Your task to perform on an android device: Open calendar and show me the third week of next month Image 0: 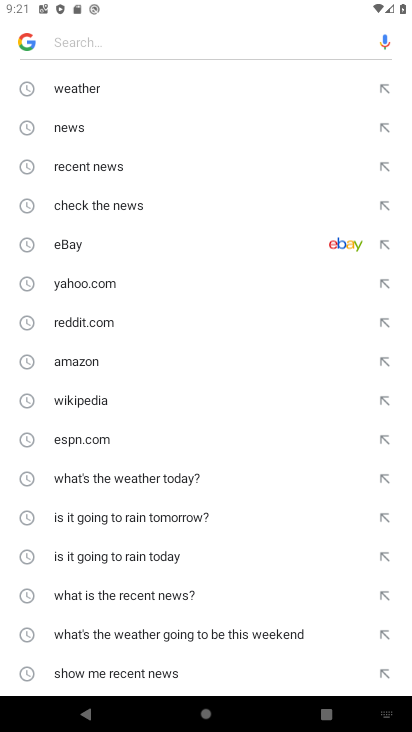
Step 0: press home button
Your task to perform on an android device: Open calendar and show me the third week of next month Image 1: 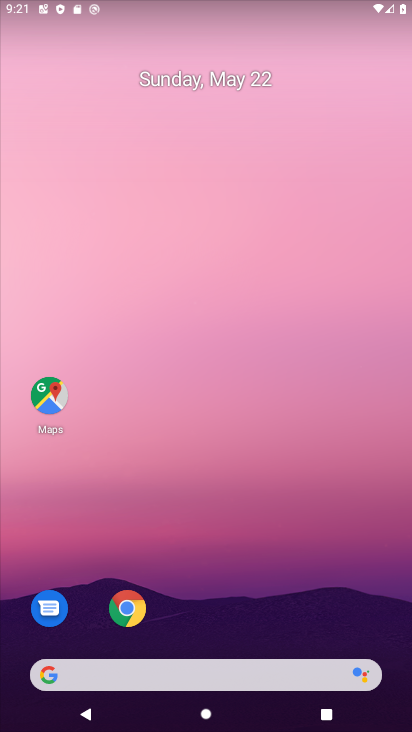
Step 1: drag from (213, 408) to (148, 84)
Your task to perform on an android device: Open calendar and show me the third week of next month Image 2: 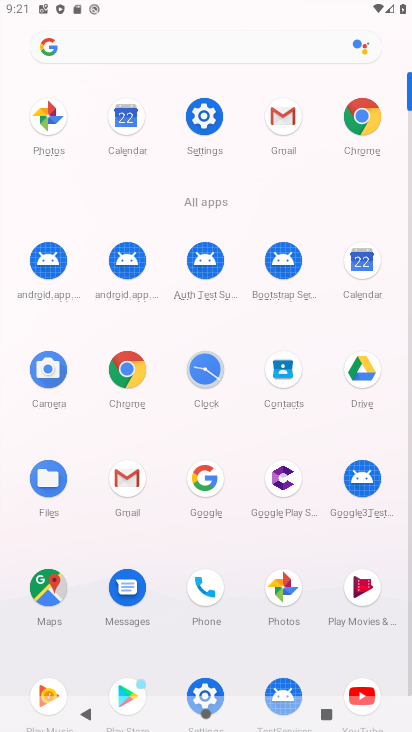
Step 2: click (129, 129)
Your task to perform on an android device: Open calendar and show me the third week of next month Image 3: 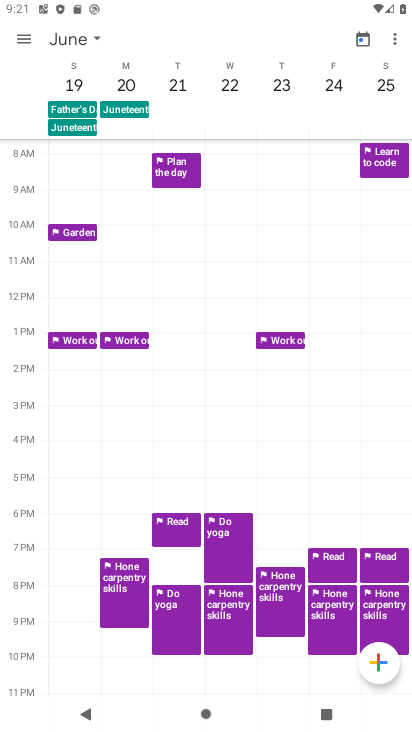
Step 3: task complete